Your task to perform on an android device: Open Google Image 0: 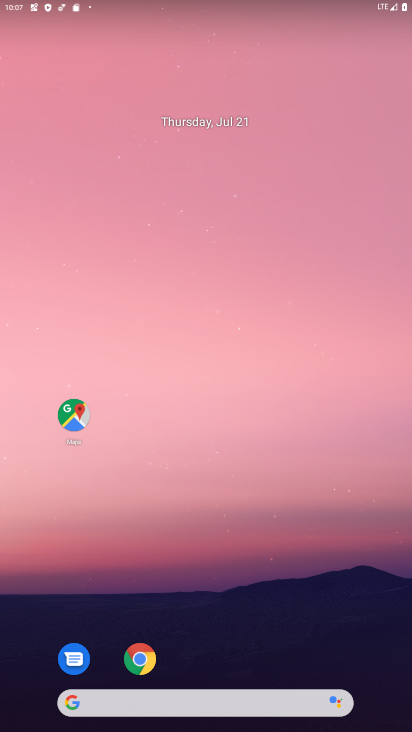
Step 0: drag from (324, 640) to (293, 74)
Your task to perform on an android device: Open Google Image 1: 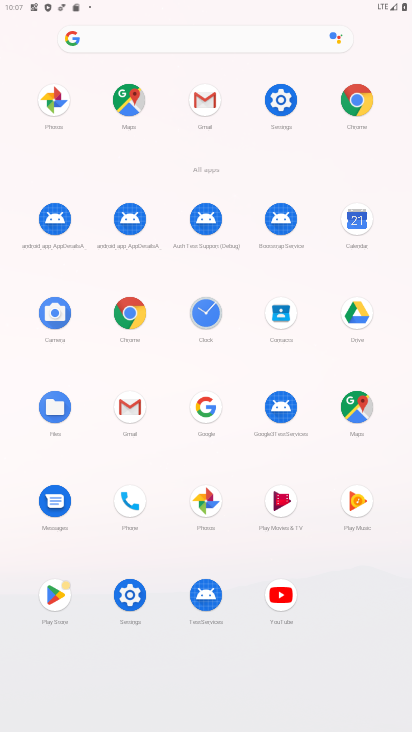
Step 1: click (207, 404)
Your task to perform on an android device: Open Google Image 2: 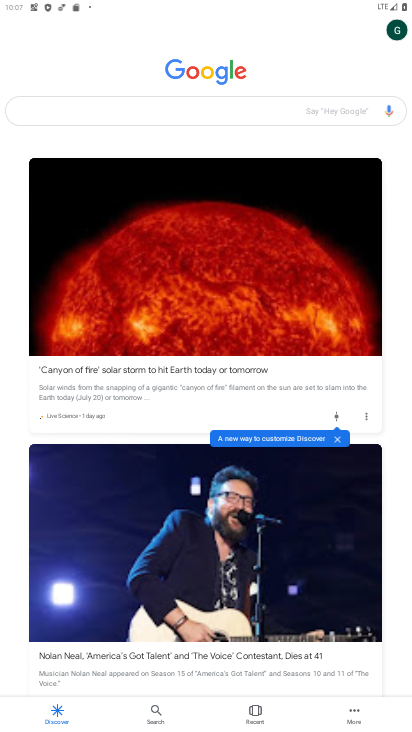
Step 2: task complete